Your task to perform on an android device: see creations saved in the google photos Image 0: 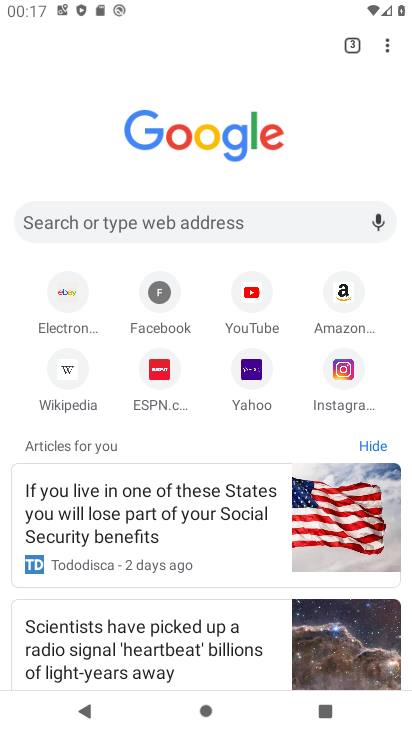
Step 0: press back button
Your task to perform on an android device: see creations saved in the google photos Image 1: 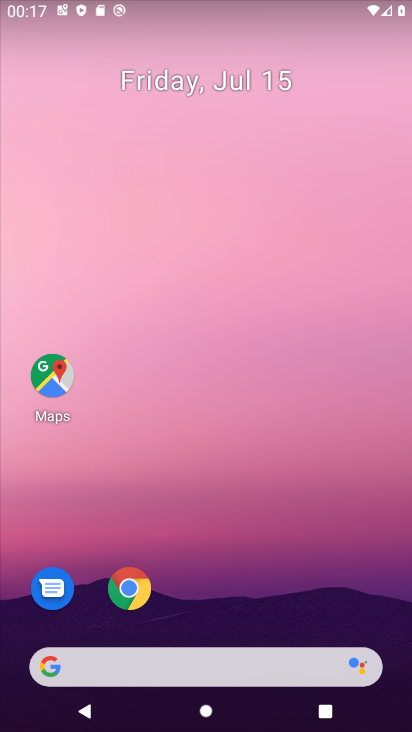
Step 1: drag from (203, 597) to (302, 1)
Your task to perform on an android device: see creations saved in the google photos Image 2: 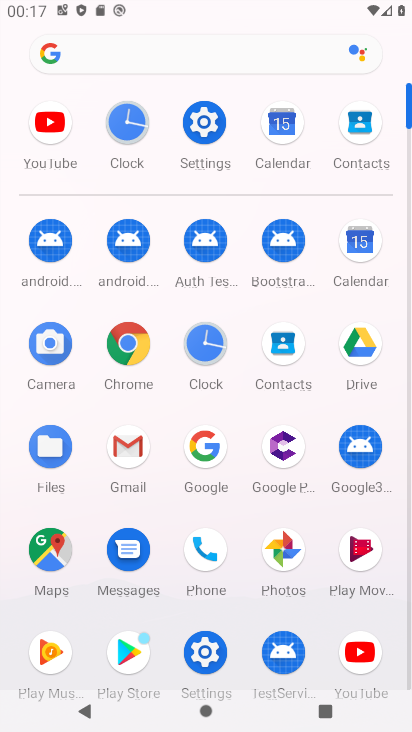
Step 2: click (294, 555)
Your task to perform on an android device: see creations saved in the google photos Image 3: 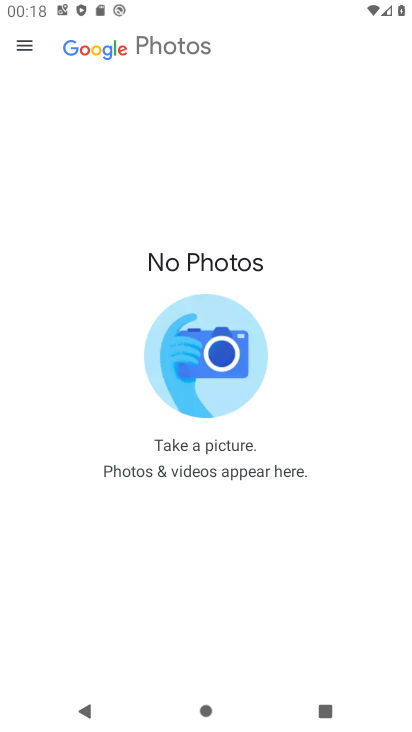
Step 3: click (21, 35)
Your task to perform on an android device: see creations saved in the google photos Image 4: 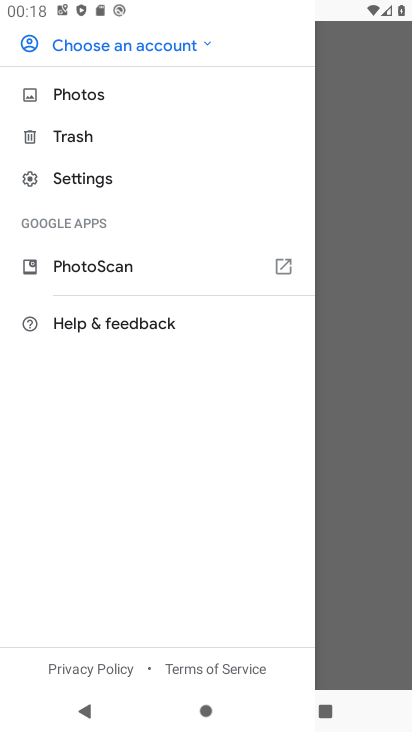
Step 4: task complete